Your task to perform on an android device: open device folders in google photos Image 0: 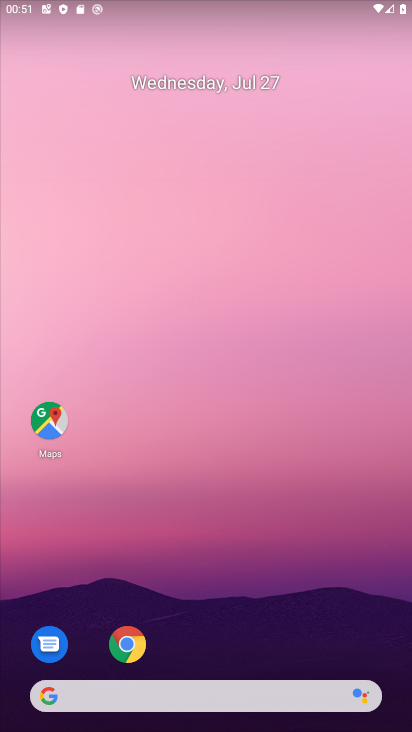
Step 0: drag from (249, 644) to (238, 278)
Your task to perform on an android device: open device folders in google photos Image 1: 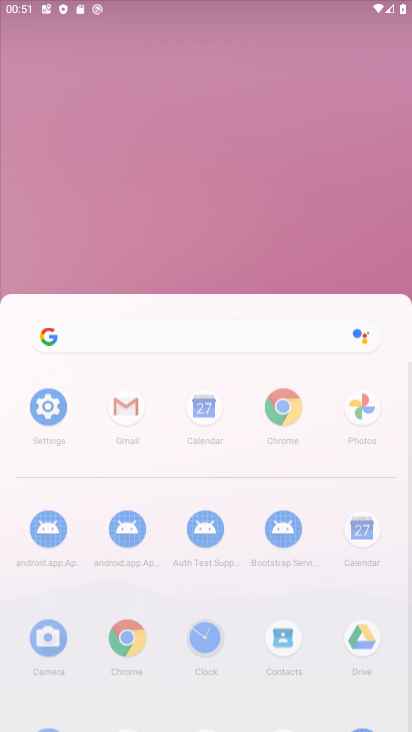
Step 1: drag from (129, 638) to (120, 252)
Your task to perform on an android device: open device folders in google photos Image 2: 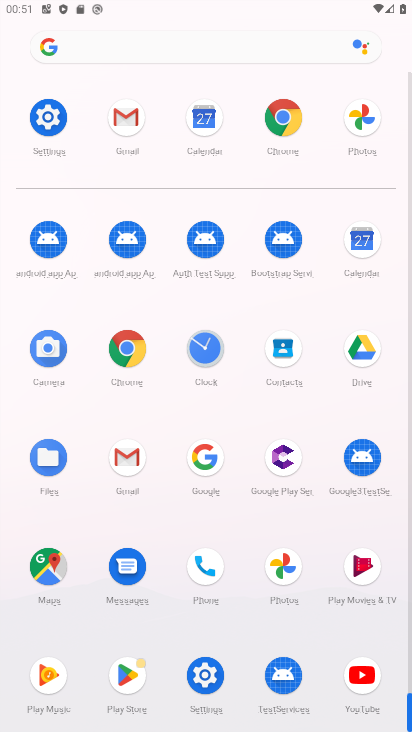
Step 2: click (283, 563)
Your task to perform on an android device: open device folders in google photos Image 3: 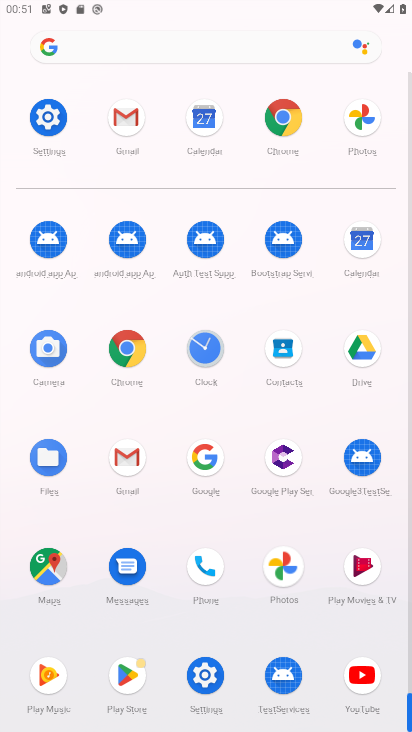
Step 3: click (282, 564)
Your task to perform on an android device: open device folders in google photos Image 4: 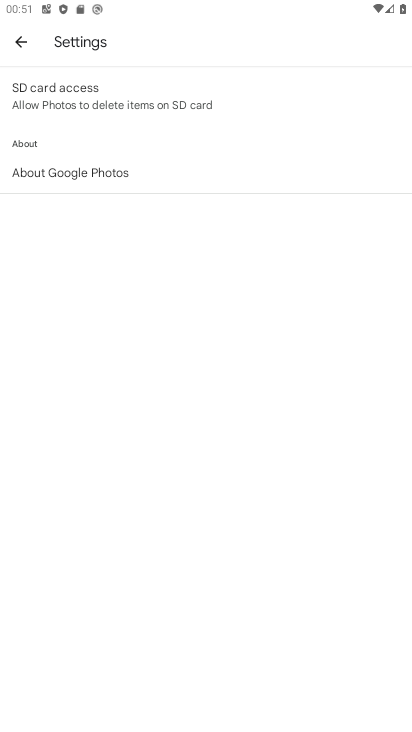
Step 4: click (13, 43)
Your task to perform on an android device: open device folders in google photos Image 5: 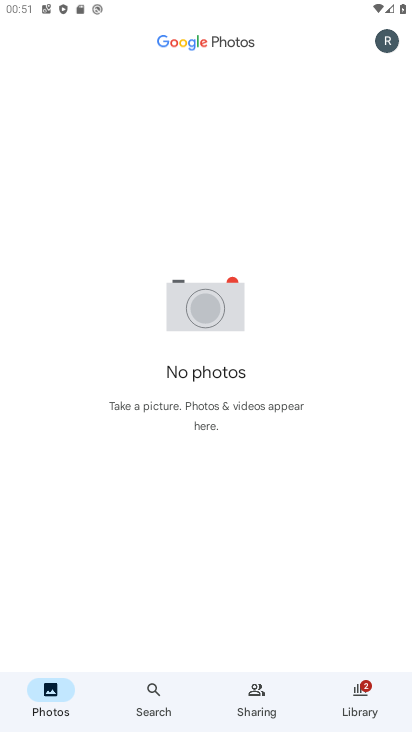
Step 5: task complete